Your task to perform on an android device: toggle notifications settings in the gmail app Image 0: 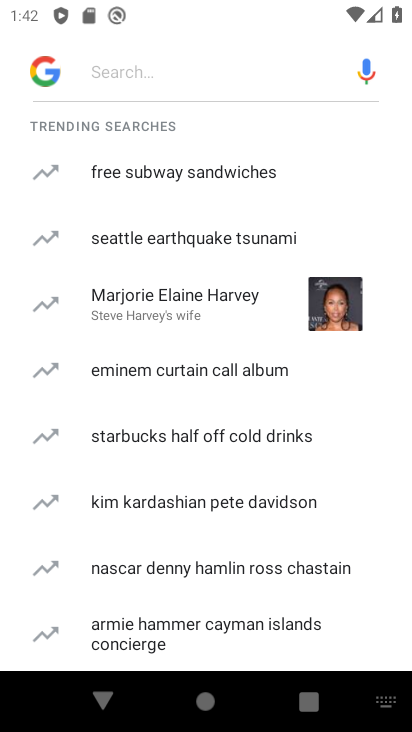
Step 0: press home button
Your task to perform on an android device: toggle notifications settings in the gmail app Image 1: 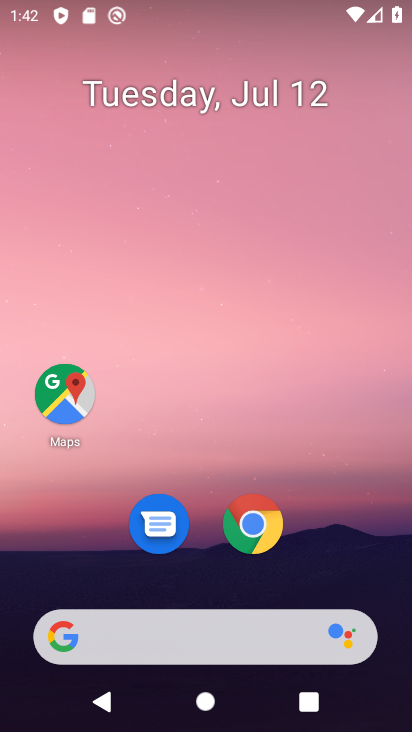
Step 1: drag from (312, 520) to (294, 10)
Your task to perform on an android device: toggle notifications settings in the gmail app Image 2: 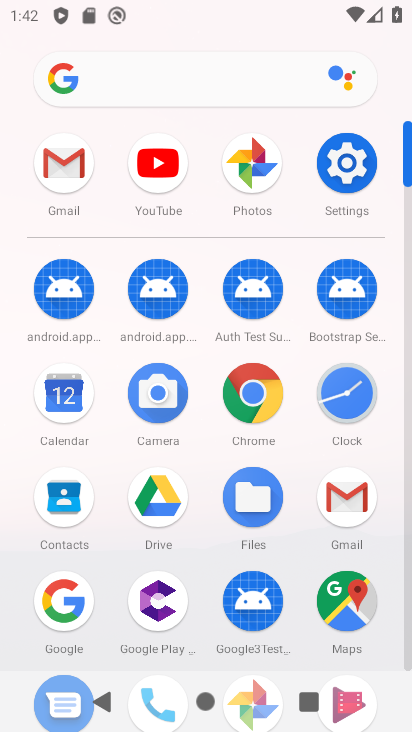
Step 2: click (70, 173)
Your task to perform on an android device: toggle notifications settings in the gmail app Image 3: 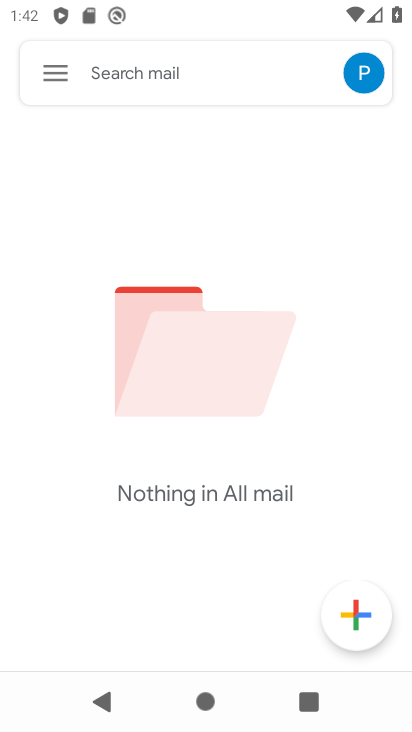
Step 3: click (52, 72)
Your task to perform on an android device: toggle notifications settings in the gmail app Image 4: 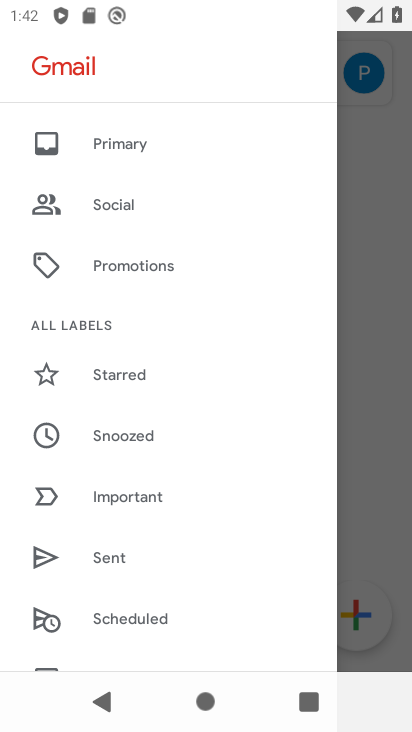
Step 4: drag from (146, 529) to (239, 2)
Your task to perform on an android device: toggle notifications settings in the gmail app Image 5: 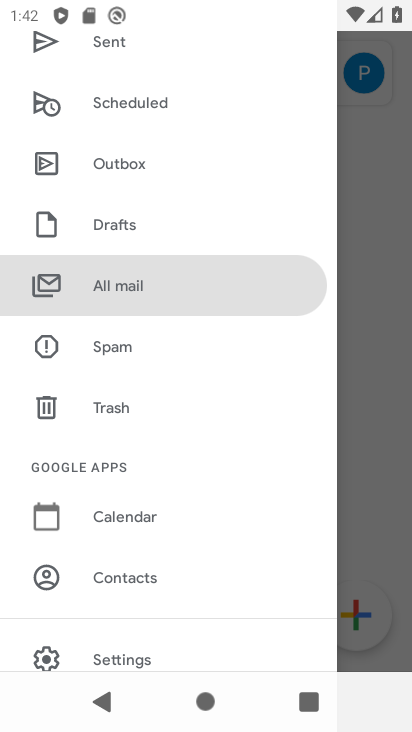
Step 5: click (126, 654)
Your task to perform on an android device: toggle notifications settings in the gmail app Image 6: 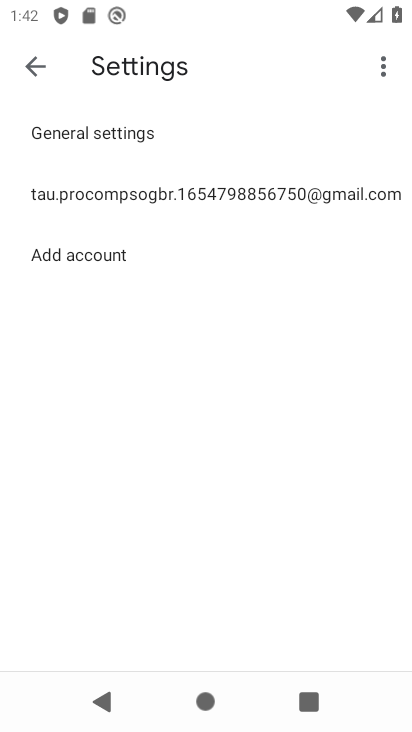
Step 6: click (118, 132)
Your task to perform on an android device: toggle notifications settings in the gmail app Image 7: 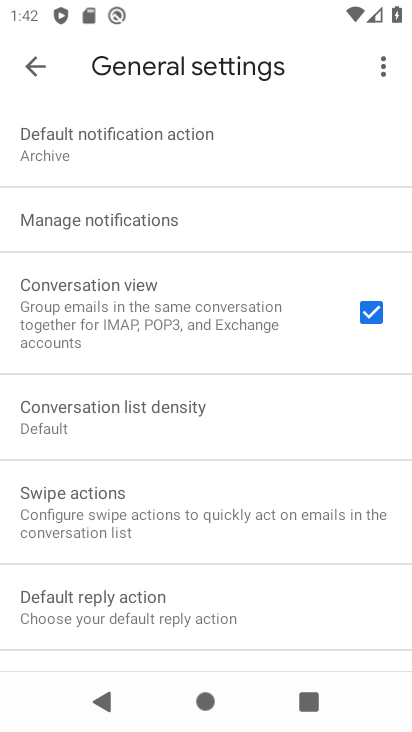
Step 7: click (161, 210)
Your task to perform on an android device: toggle notifications settings in the gmail app Image 8: 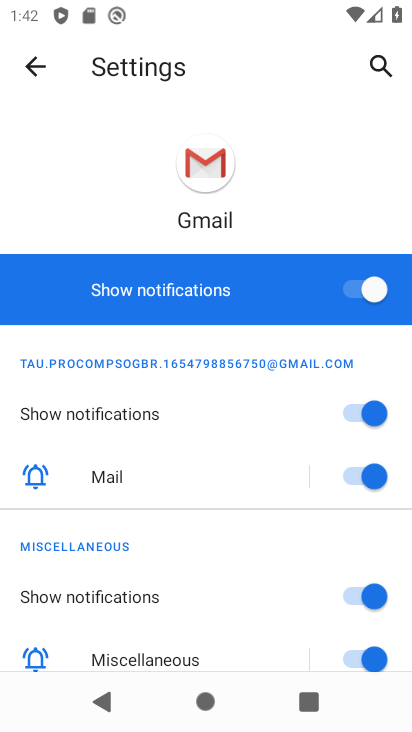
Step 8: click (362, 289)
Your task to perform on an android device: toggle notifications settings in the gmail app Image 9: 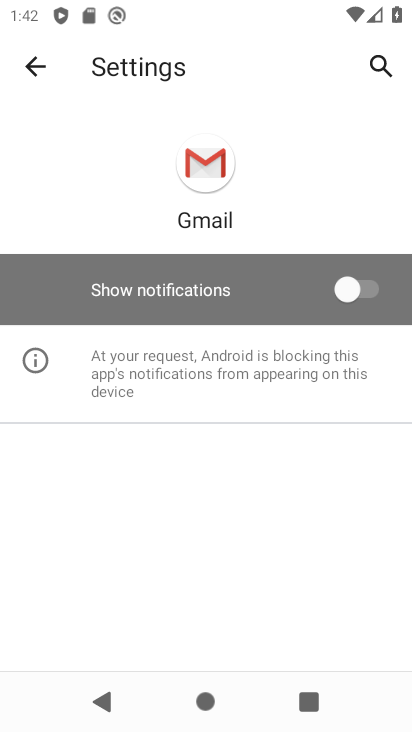
Step 9: task complete